Your task to perform on an android device: Open Maps and search for coffee Image 0: 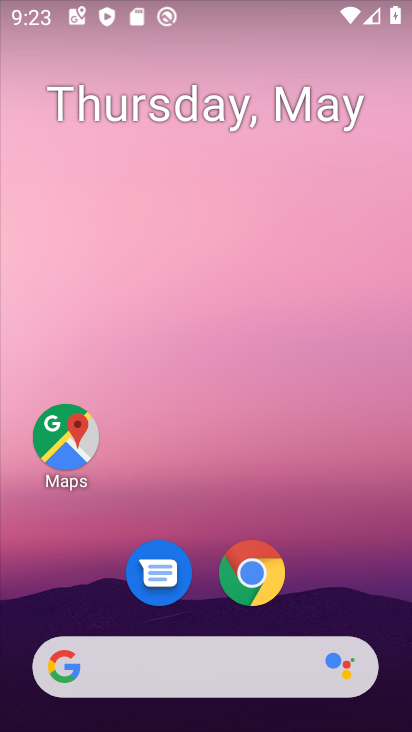
Step 0: click (51, 450)
Your task to perform on an android device: Open Maps and search for coffee Image 1: 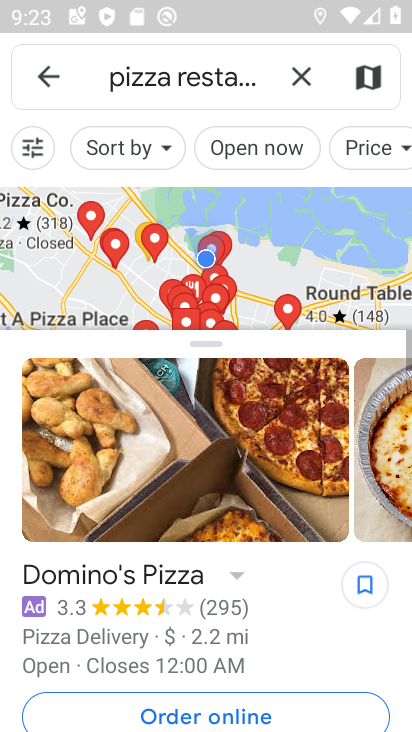
Step 1: click (295, 69)
Your task to perform on an android device: Open Maps and search for coffee Image 2: 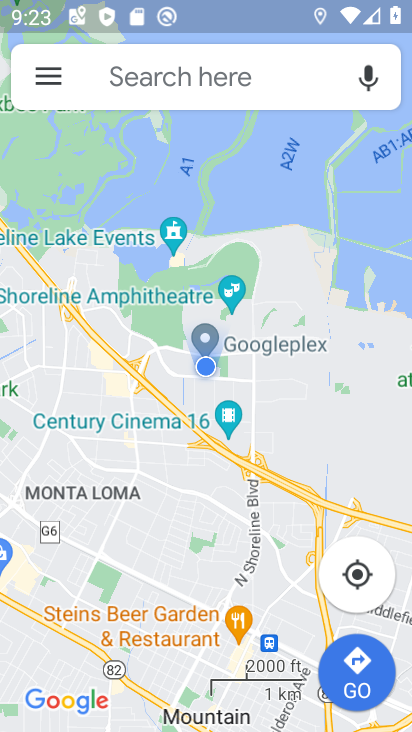
Step 2: click (255, 81)
Your task to perform on an android device: Open Maps and search for coffee Image 3: 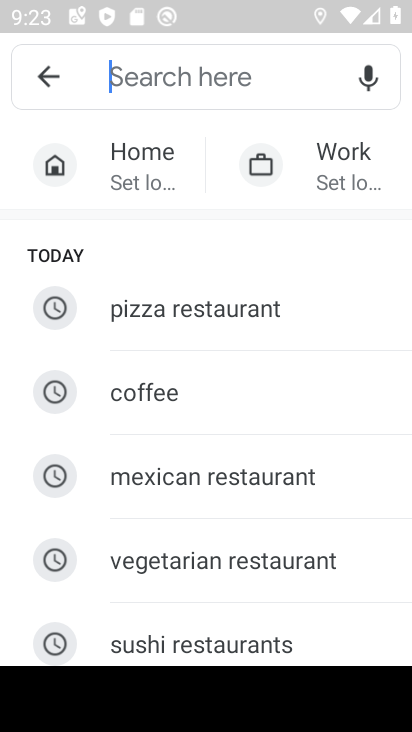
Step 3: click (165, 406)
Your task to perform on an android device: Open Maps and search for coffee Image 4: 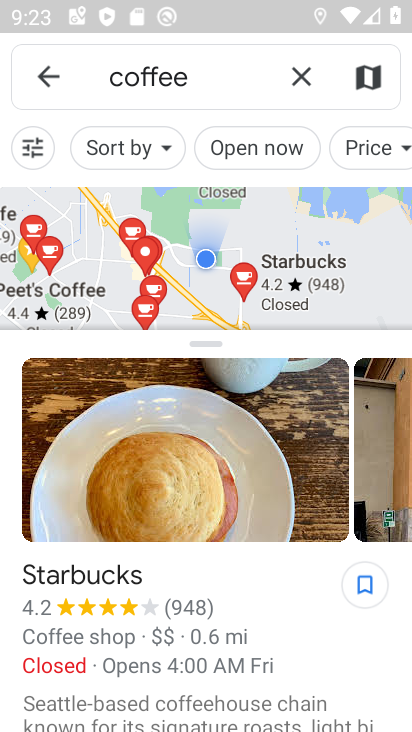
Step 4: task complete